Your task to perform on an android device: turn off sleep mode Image 0: 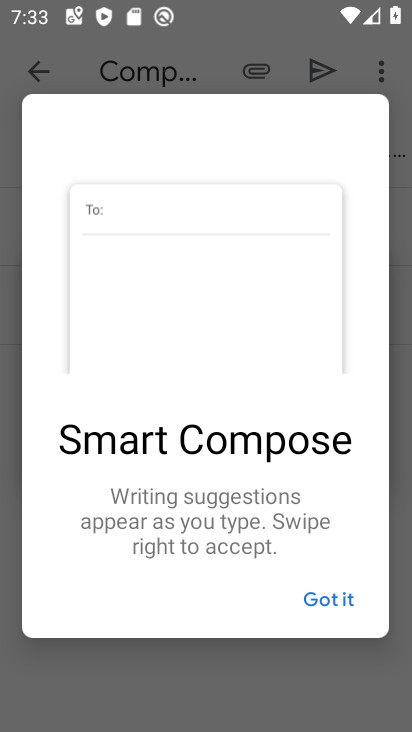
Step 0: press home button
Your task to perform on an android device: turn off sleep mode Image 1: 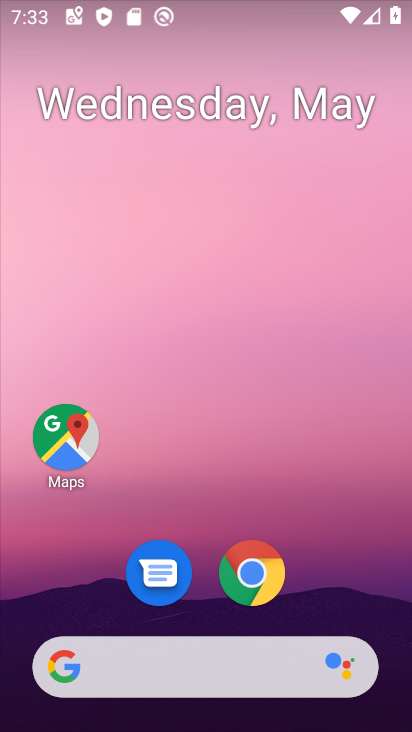
Step 1: drag from (320, 602) to (242, 179)
Your task to perform on an android device: turn off sleep mode Image 2: 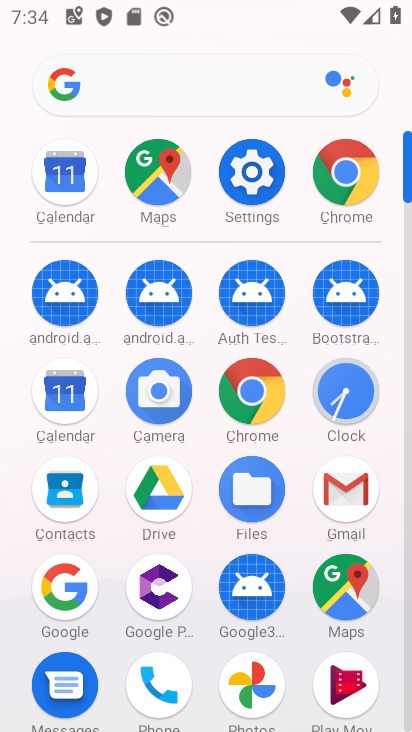
Step 2: click (276, 204)
Your task to perform on an android device: turn off sleep mode Image 3: 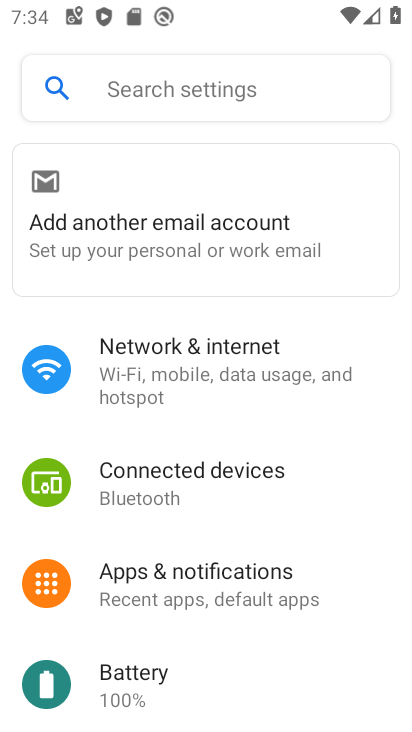
Step 3: task complete